Your task to perform on an android device: open app "Chime – Mobile Banking" Image 0: 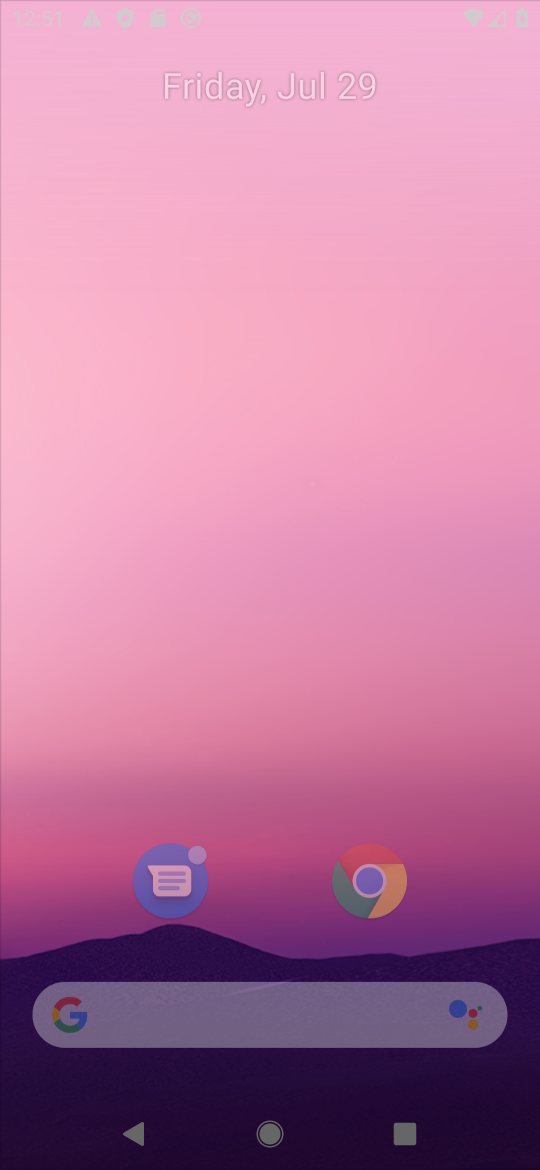
Step 0: click (215, 222)
Your task to perform on an android device: open app "Chime – Mobile Banking" Image 1: 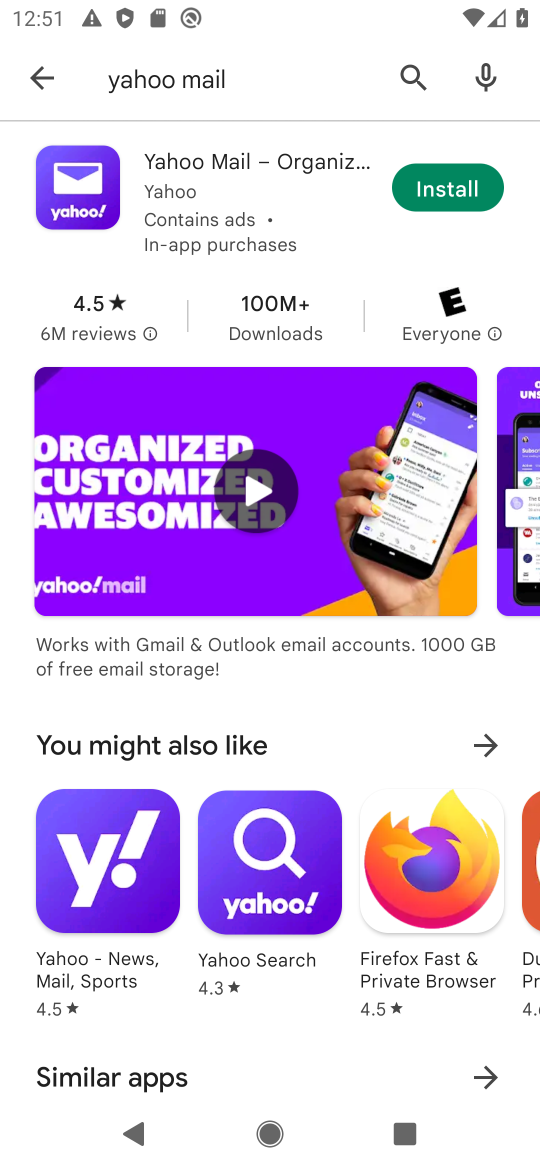
Step 1: click (403, 85)
Your task to perform on an android device: open app "Chime – Mobile Banking" Image 2: 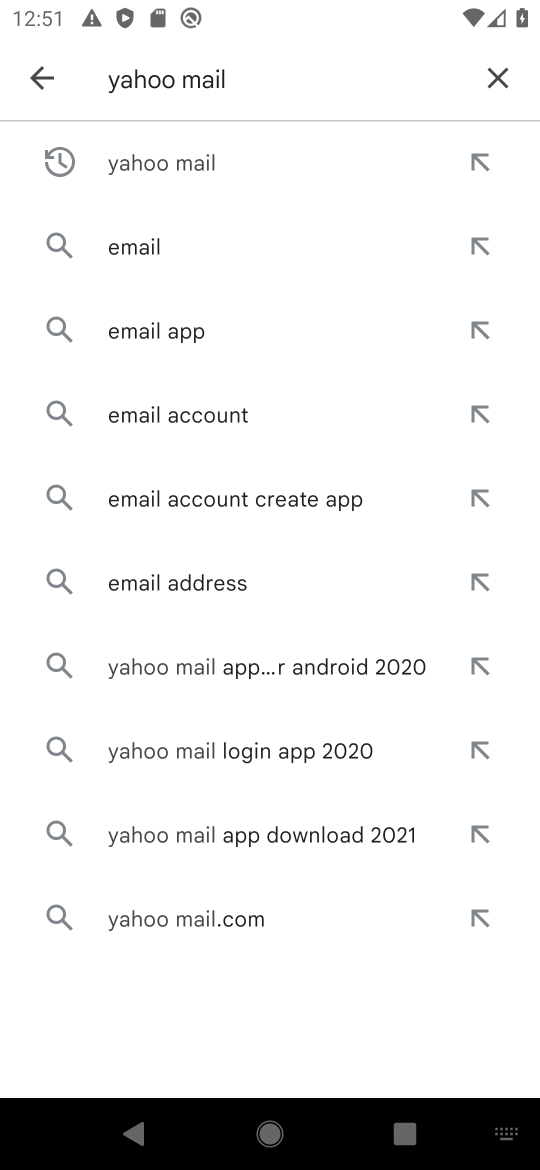
Step 2: click (498, 74)
Your task to perform on an android device: open app "Chime – Mobile Banking" Image 3: 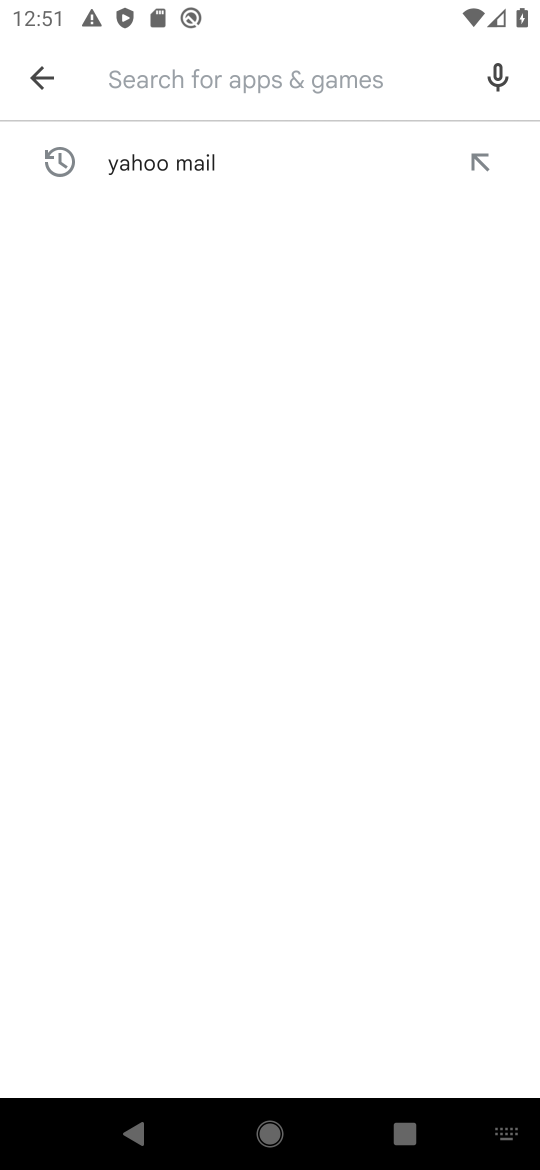
Step 3: type "chime mobile banking"
Your task to perform on an android device: open app "Chime – Mobile Banking" Image 4: 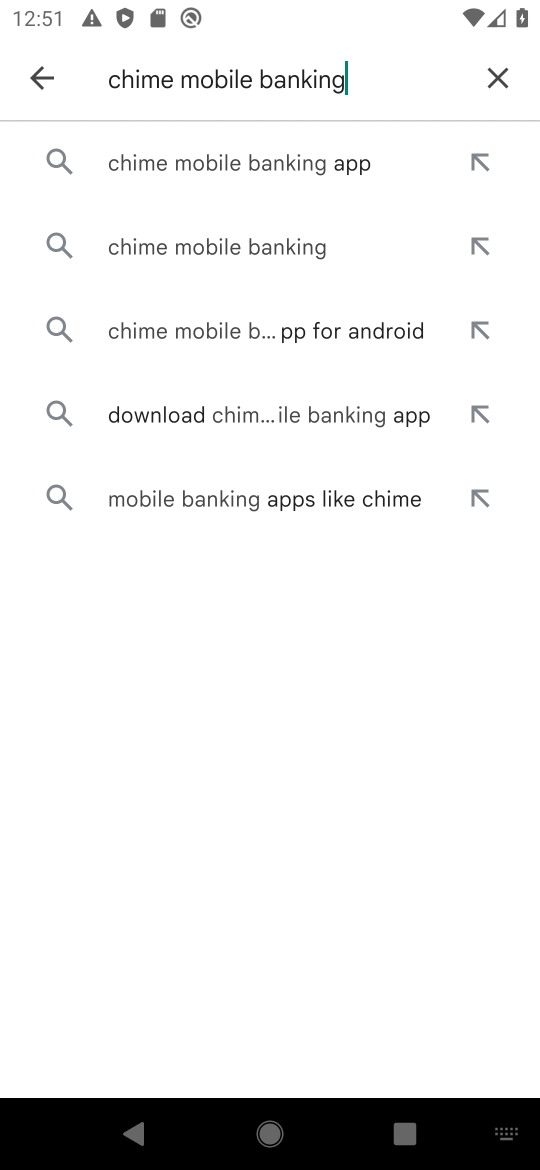
Step 4: click (284, 166)
Your task to perform on an android device: open app "Chime – Mobile Banking" Image 5: 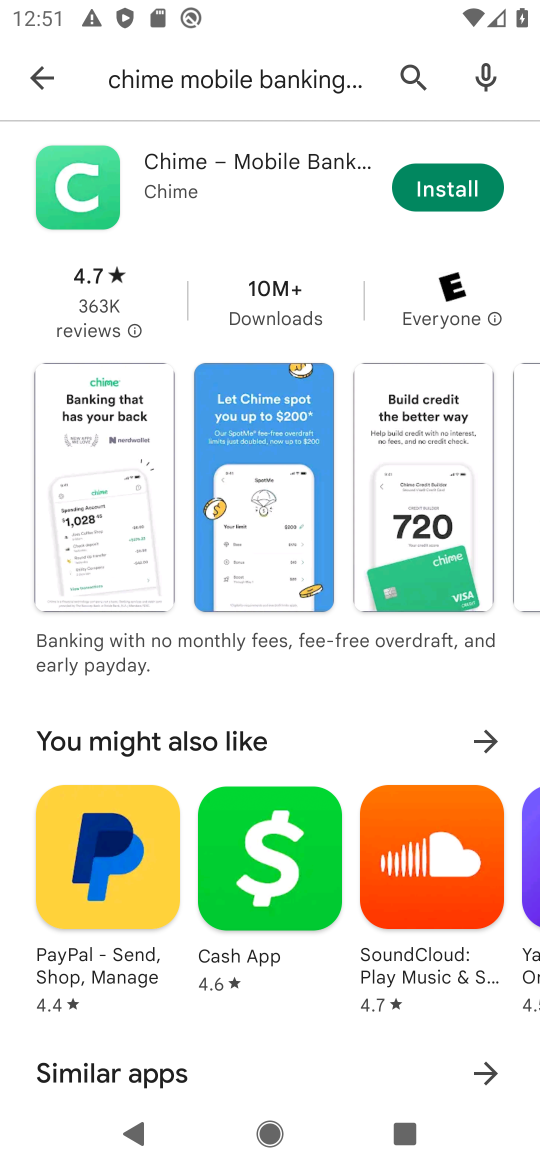
Step 5: task complete